Your task to perform on an android device: choose inbox layout in the gmail app Image 0: 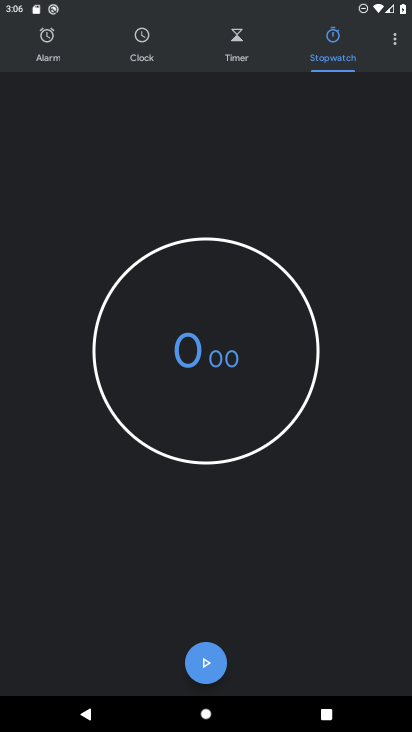
Step 0: press home button
Your task to perform on an android device: choose inbox layout in the gmail app Image 1: 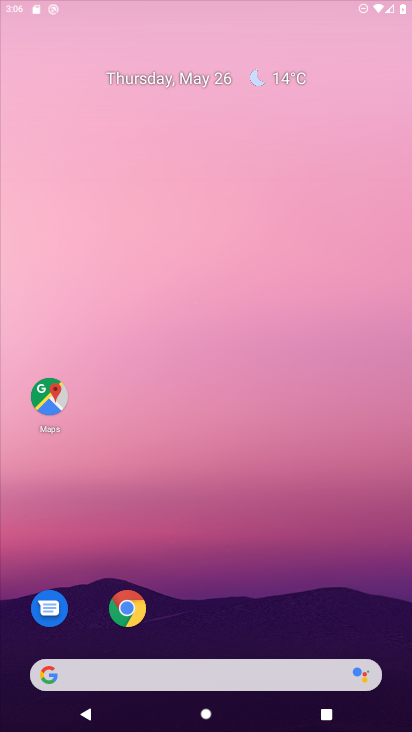
Step 1: drag from (327, 599) to (266, 116)
Your task to perform on an android device: choose inbox layout in the gmail app Image 2: 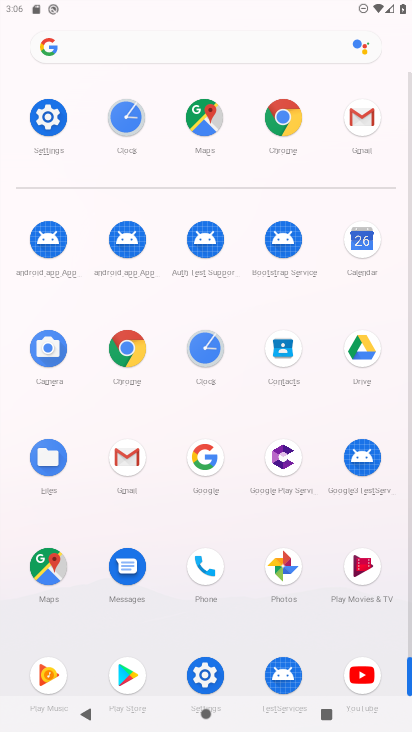
Step 2: click (373, 114)
Your task to perform on an android device: choose inbox layout in the gmail app Image 3: 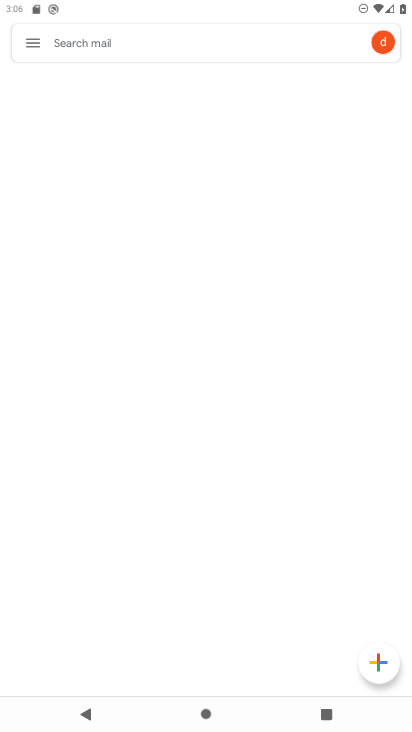
Step 3: click (31, 51)
Your task to perform on an android device: choose inbox layout in the gmail app Image 4: 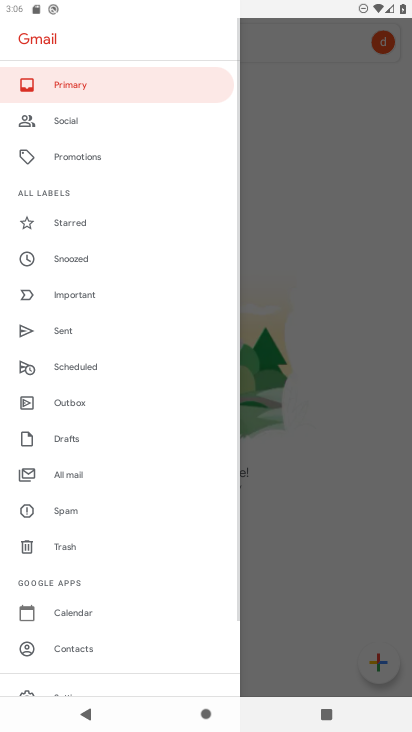
Step 4: drag from (121, 507) to (111, 76)
Your task to perform on an android device: choose inbox layout in the gmail app Image 5: 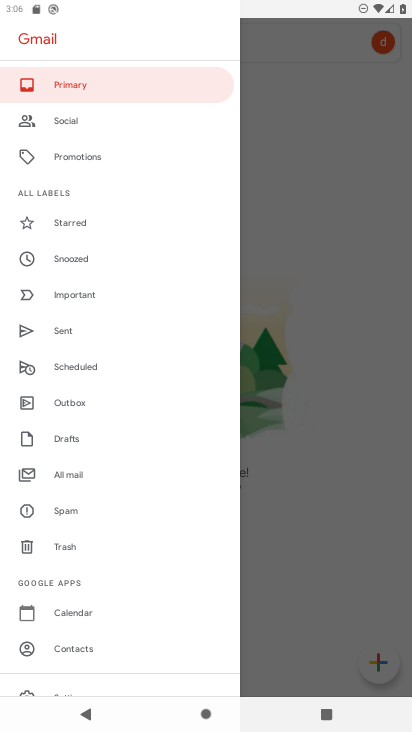
Step 5: drag from (70, 575) to (169, 259)
Your task to perform on an android device: choose inbox layout in the gmail app Image 6: 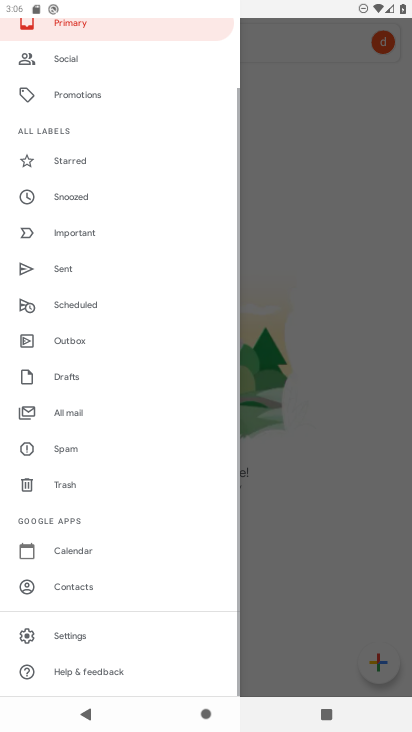
Step 6: click (75, 636)
Your task to perform on an android device: choose inbox layout in the gmail app Image 7: 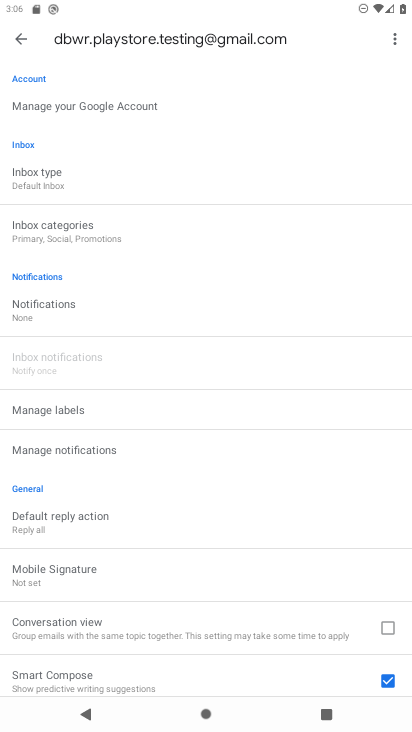
Step 7: click (43, 172)
Your task to perform on an android device: choose inbox layout in the gmail app Image 8: 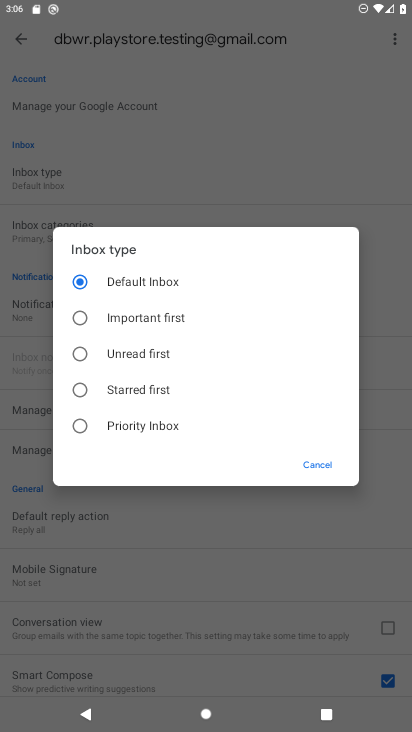
Step 8: click (133, 354)
Your task to perform on an android device: choose inbox layout in the gmail app Image 9: 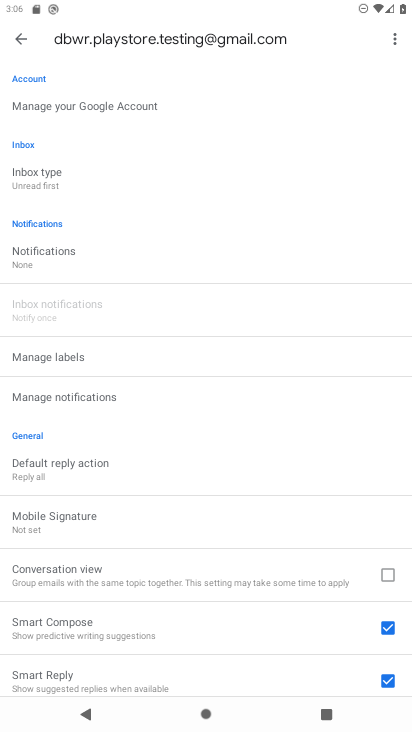
Step 9: task complete